Your task to perform on an android device: Open Youtube and go to "Your channel" Image 0: 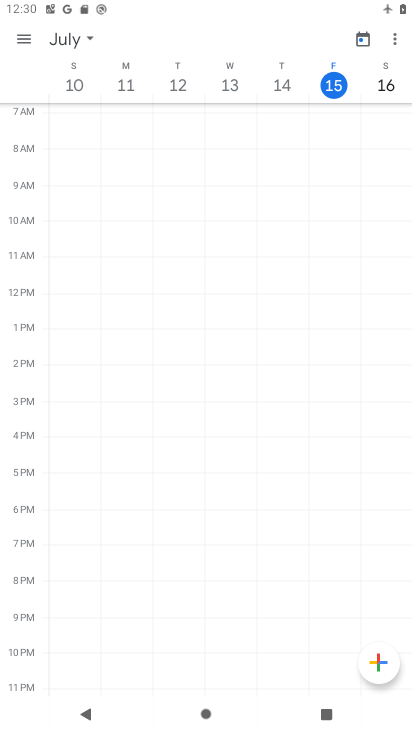
Step 0: press home button
Your task to perform on an android device: Open Youtube and go to "Your channel" Image 1: 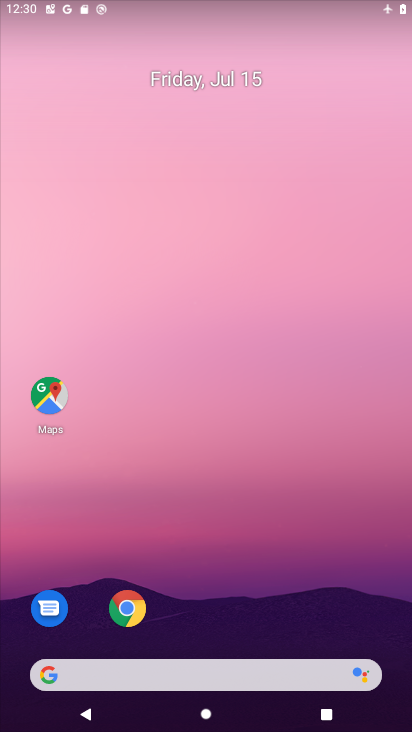
Step 1: drag from (202, 576) to (108, 14)
Your task to perform on an android device: Open Youtube and go to "Your channel" Image 2: 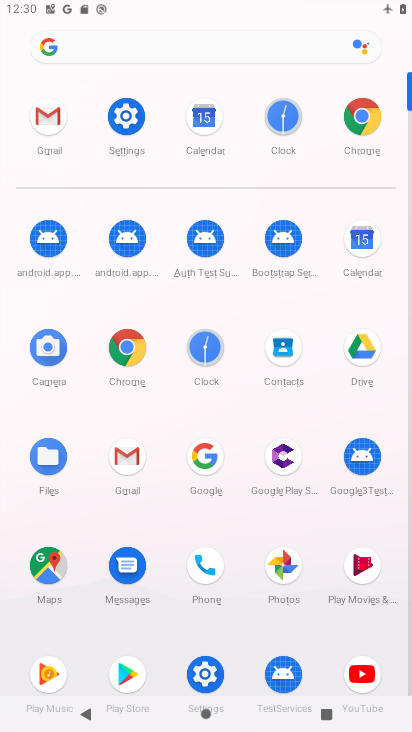
Step 2: click (355, 668)
Your task to perform on an android device: Open Youtube and go to "Your channel" Image 3: 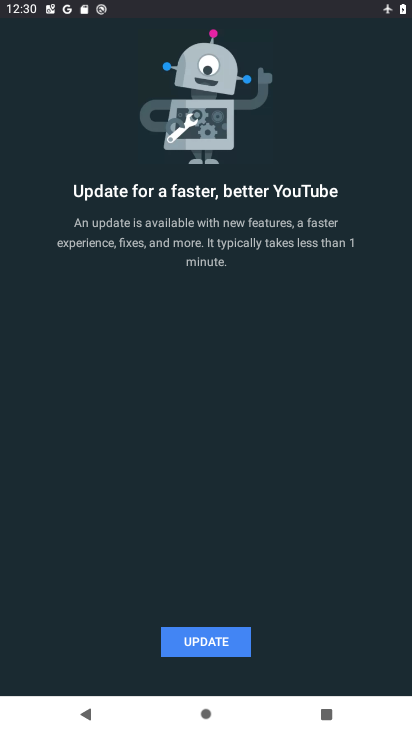
Step 3: click (212, 639)
Your task to perform on an android device: Open Youtube and go to "Your channel" Image 4: 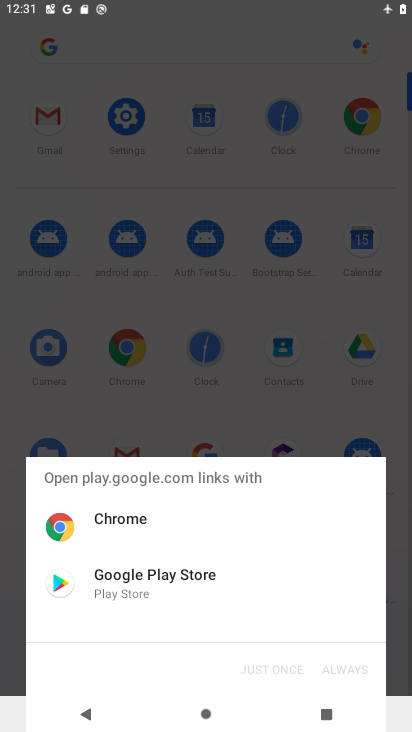
Step 4: click (157, 587)
Your task to perform on an android device: Open Youtube and go to "Your channel" Image 5: 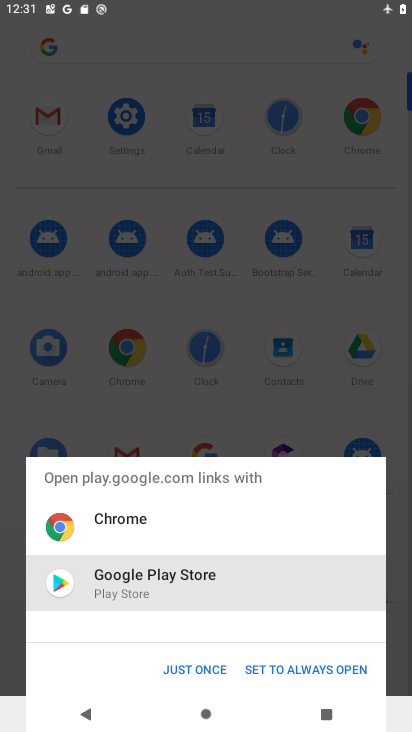
Step 5: click (205, 668)
Your task to perform on an android device: Open Youtube and go to "Your channel" Image 6: 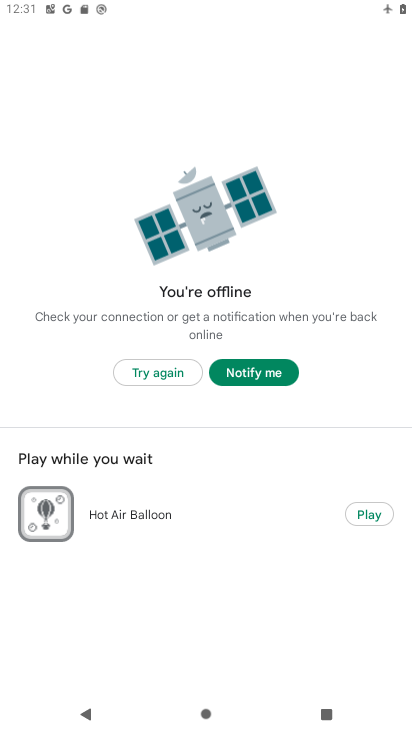
Step 6: click (139, 372)
Your task to perform on an android device: Open Youtube and go to "Your channel" Image 7: 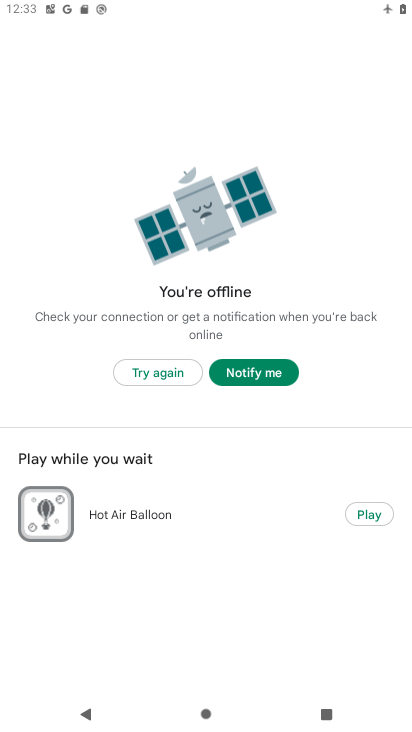
Step 7: task complete